Your task to perform on an android device: Open settings on Google Maps Image 0: 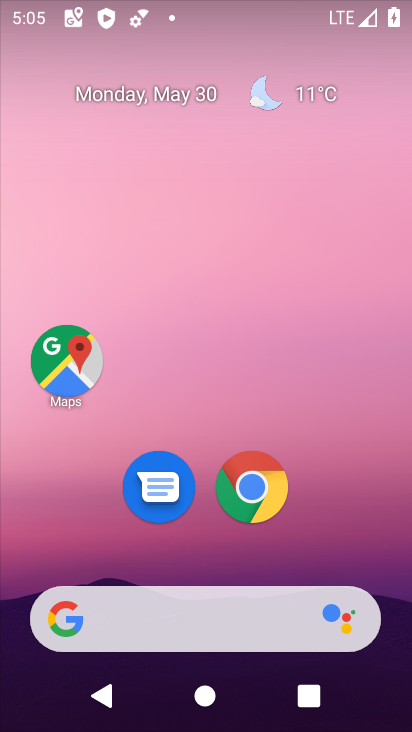
Step 0: click (67, 361)
Your task to perform on an android device: Open settings on Google Maps Image 1: 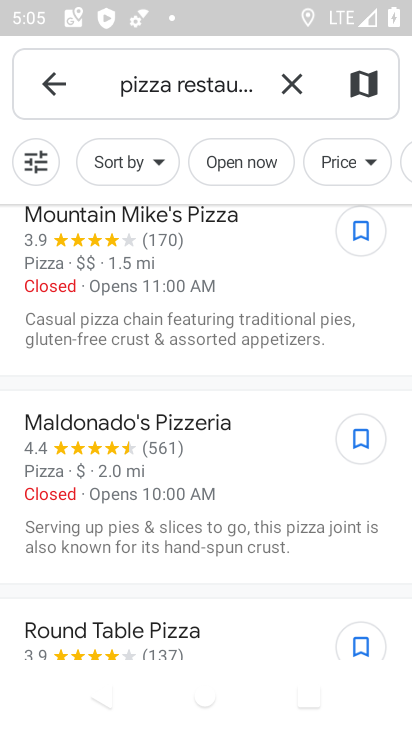
Step 1: click (286, 83)
Your task to perform on an android device: Open settings on Google Maps Image 2: 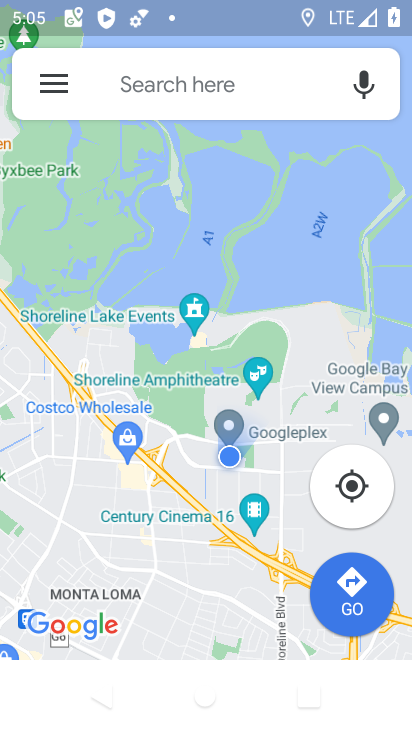
Step 2: click (55, 81)
Your task to perform on an android device: Open settings on Google Maps Image 3: 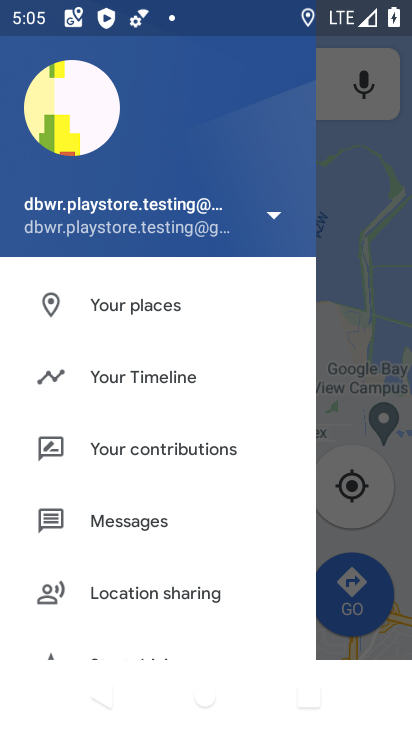
Step 3: drag from (262, 619) to (243, 184)
Your task to perform on an android device: Open settings on Google Maps Image 4: 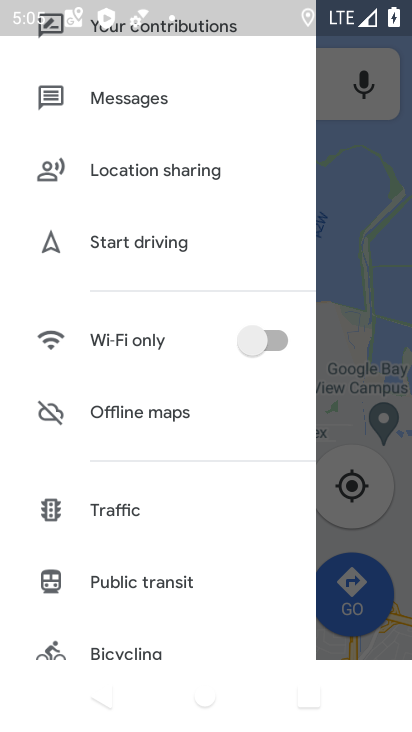
Step 4: drag from (232, 597) to (197, 153)
Your task to perform on an android device: Open settings on Google Maps Image 5: 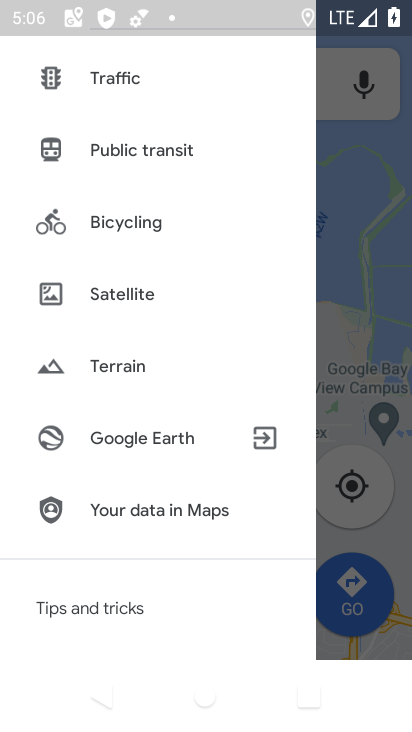
Step 5: drag from (200, 597) to (186, 200)
Your task to perform on an android device: Open settings on Google Maps Image 6: 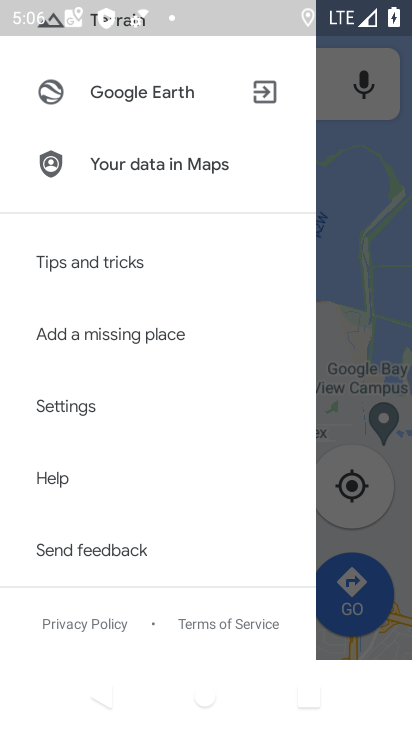
Step 6: click (77, 403)
Your task to perform on an android device: Open settings on Google Maps Image 7: 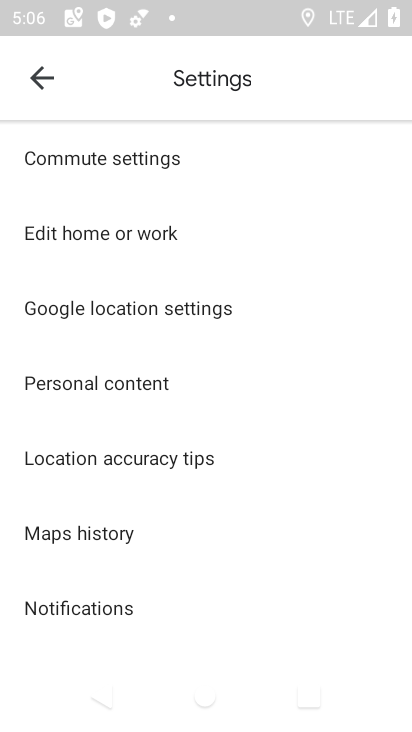
Step 7: task complete